Your task to perform on an android device: turn off notifications settings in the gmail app Image 0: 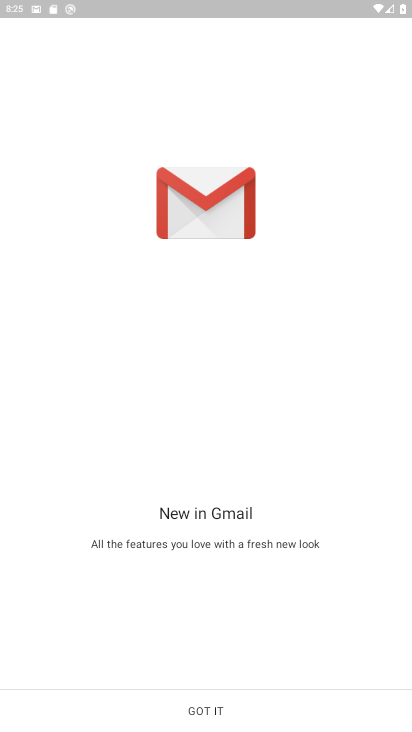
Step 0: click (227, 708)
Your task to perform on an android device: turn off notifications settings in the gmail app Image 1: 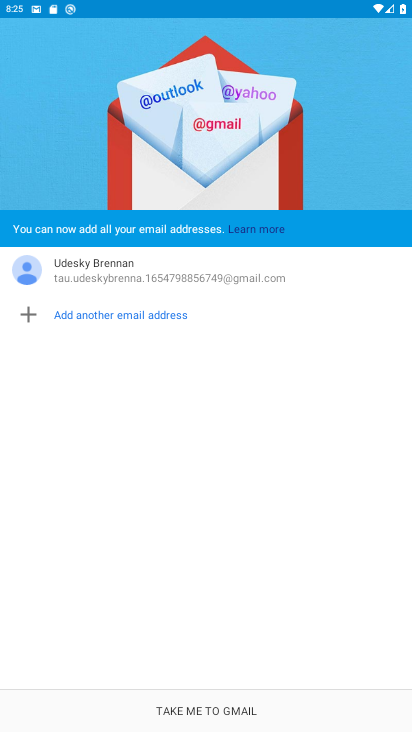
Step 1: click (227, 707)
Your task to perform on an android device: turn off notifications settings in the gmail app Image 2: 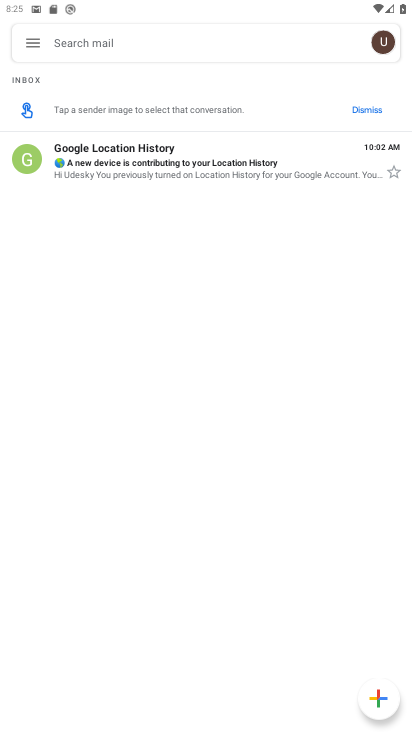
Step 2: click (30, 39)
Your task to perform on an android device: turn off notifications settings in the gmail app Image 3: 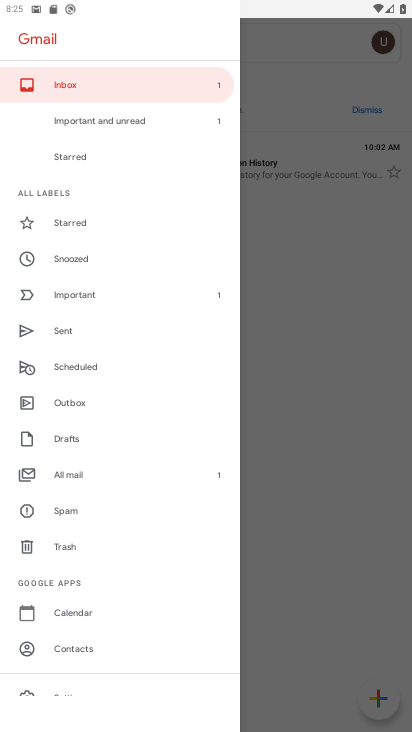
Step 3: drag from (69, 556) to (58, 427)
Your task to perform on an android device: turn off notifications settings in the gmail app Image 4: 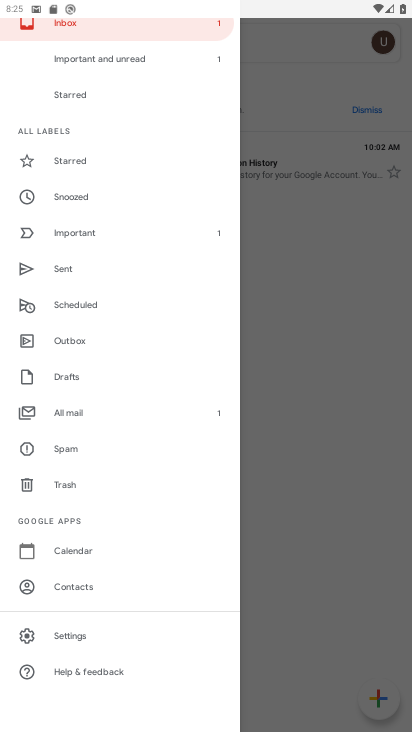
Step 4: click (74, 635)
Your task to perform on an android device: turn off notifications settings in the gmail app Image 5: 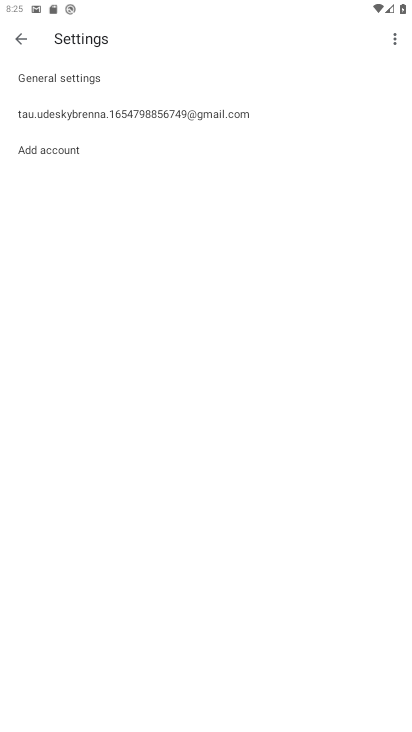
Step 5: click (62, 74)
Your task to perform on an android device: turn off notifications settings in the gmail app Image 6: 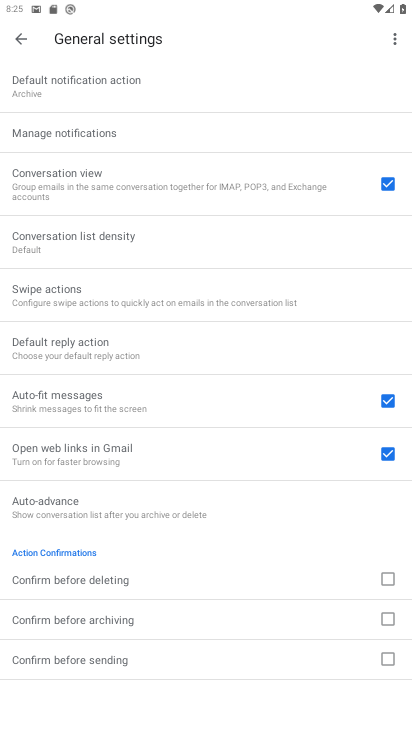
Step 6: click (60, 135)
Your task to perform on an android device: turn off notifications settings in the gmail app Image 7: 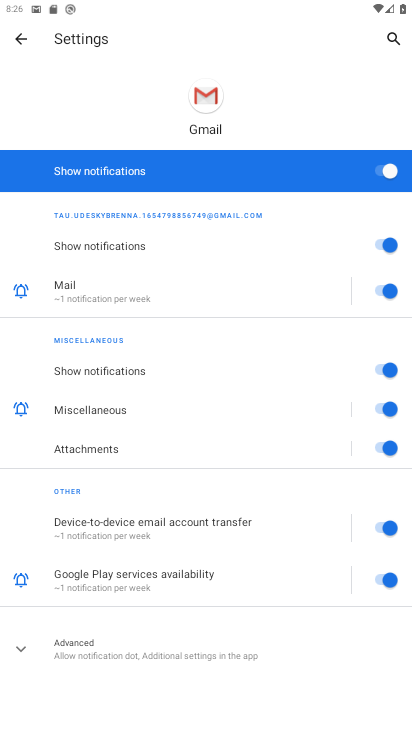
Step 7: click (386, 170)
Your task to perform on an android device: turn off notifications settings in the gmail app Image 8: 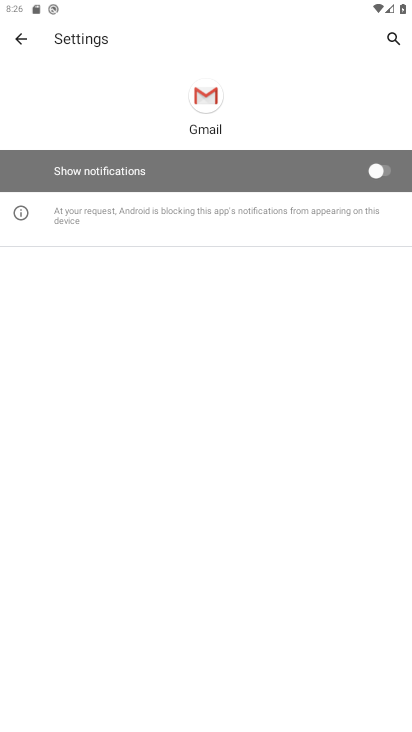
Step 8: task complete